Your task to perform on an android device: Find coffee shops on Maps Image 0: 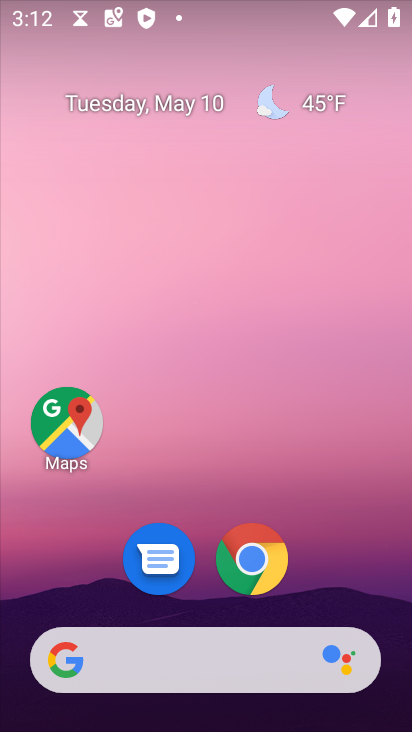
Step 0: drag from (371, 614) to (120, 142)
Your task to perform on an android device: Find coffee shops on Maps Image 1: 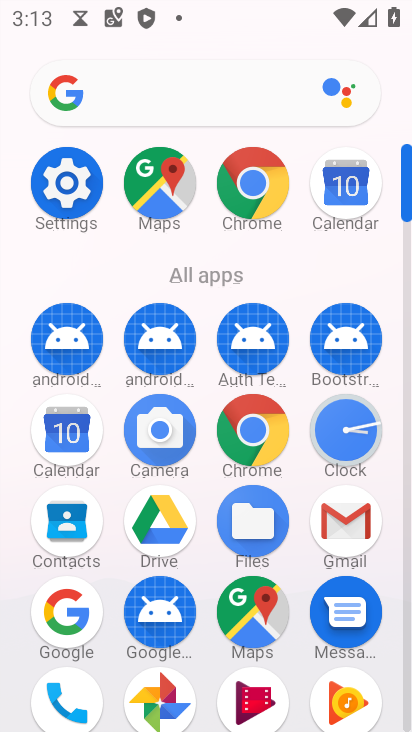
Step 1: click (158, 179)
Your task to perform on an android device: Find coffee shops on Maps Image 2: 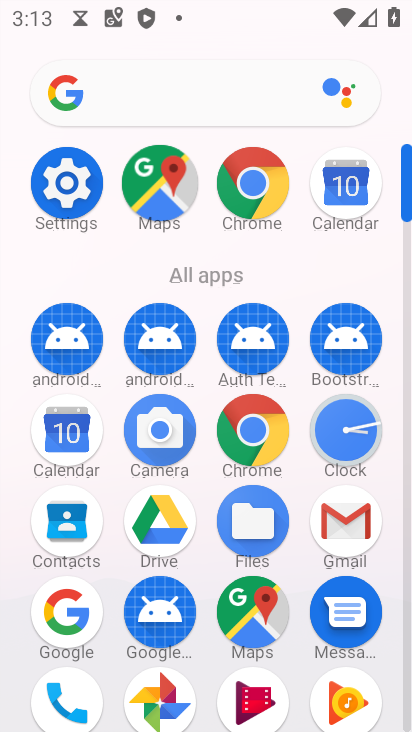
Step 2: click (158, 179)
Your task to perform on an android device: Find coffee shops on Maps Image 3: 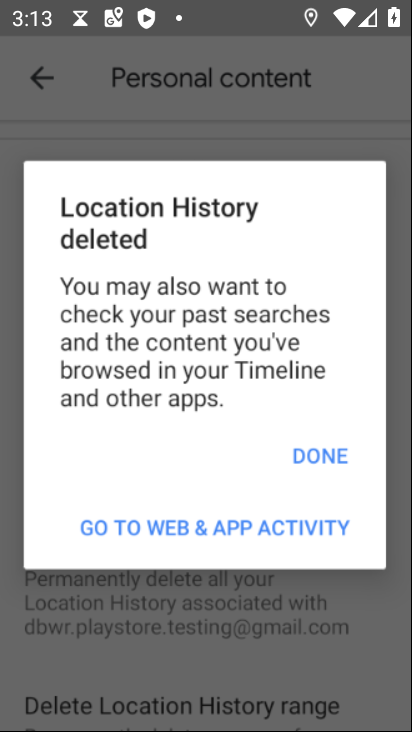
Step 3: click (172, 193)
Your task to perform on an android device: Find coffee shops on Maps Image 4: 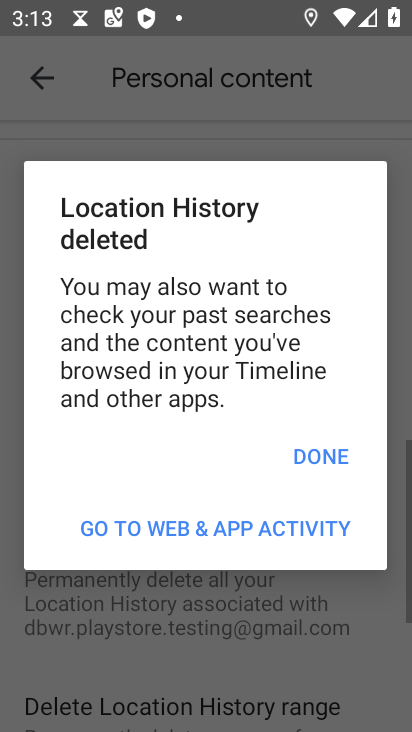
Step 4: click (40, 76)
Your task to perform on an android device: Find coffee shops on Maps Image 5: 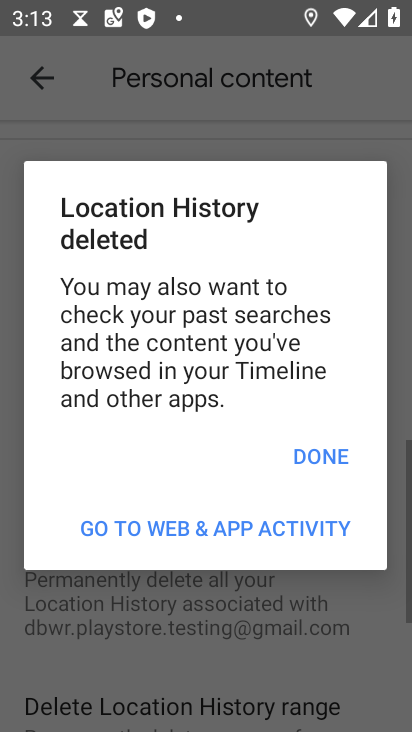
Step 5: click (40, 76)
Your task to perform on an android device: Find coffee shops on Maps Image 6: 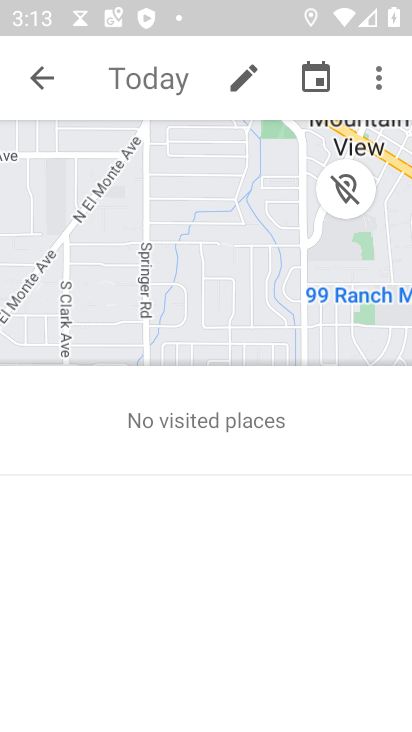
Step 6: click (31, 69)
Your task to perform on an android device: Find coffee shops on Maps Image 7: 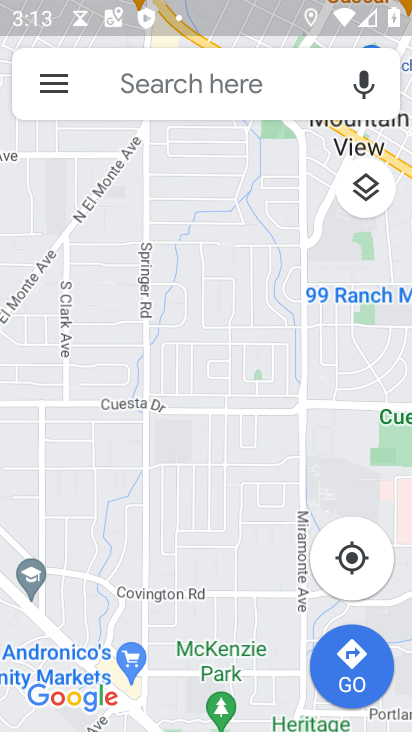
Step 7: click (126, 82)
Your task to perform on an android device: Find coffee shops on Maps Image 8: 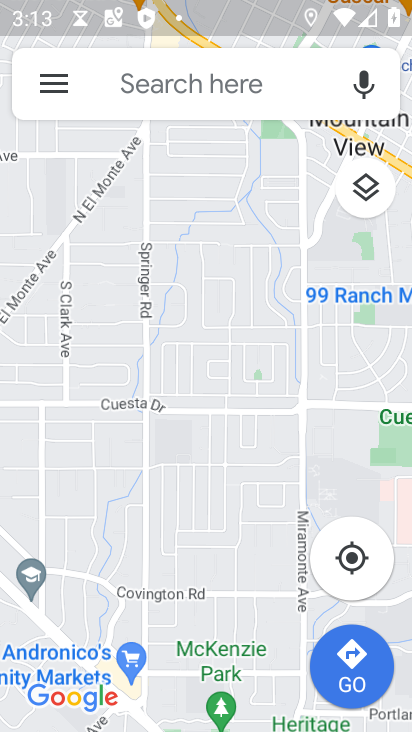
Step 8: click (130, 90)
Your task to perform on an android device: Find coffee shops on Maps Image 9: 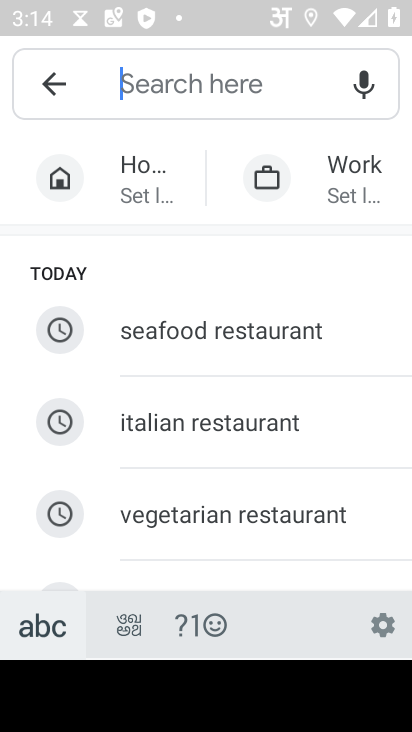
Step 9: type "coffee"
Your task to perform on an android device: Find coffee shops on Maps Image 10: 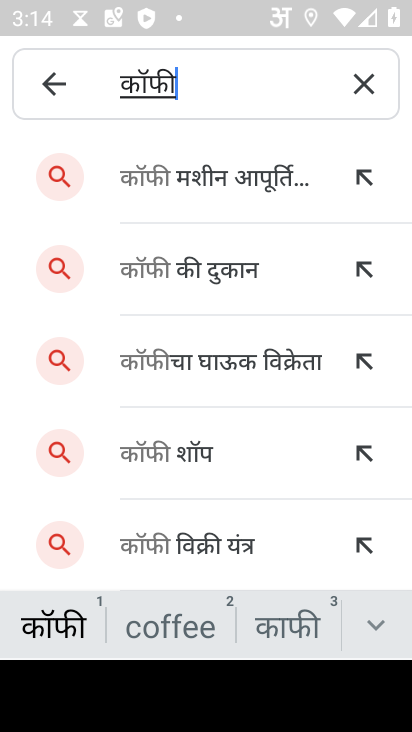
Step 10: click (178, 637)
Your task to perform on an android device: Find coffee shops on Maps Image 11: 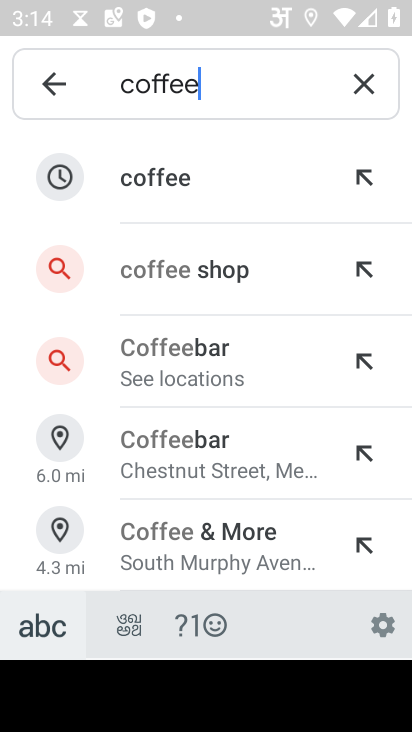
Step 11: click (164, 173)
Your task to perform on an android device: Find coffee shops on Maps Image 12: 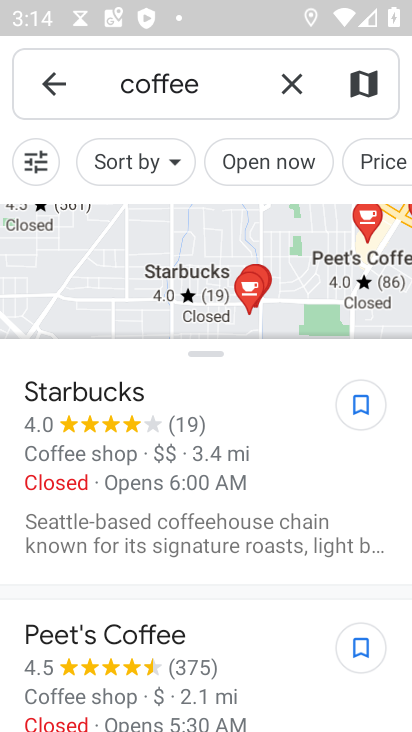
Step 12: task complete